Your task to perform on an android device: Open the web browser Image 0: 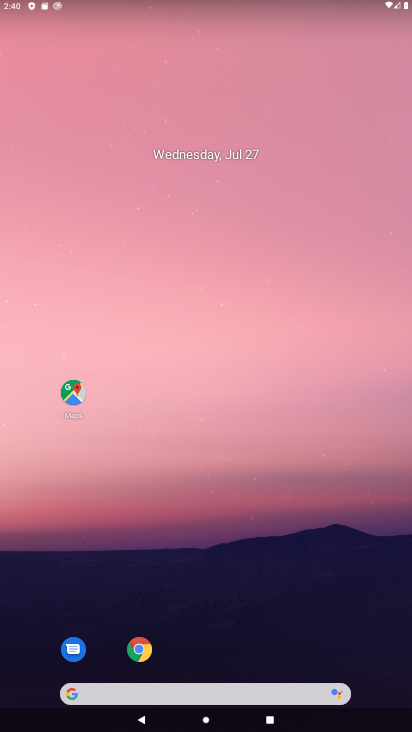
Step 0: drag from (352, 632) to (93, 22)
Your task to perform on an android device: Open the web browser Image 1: 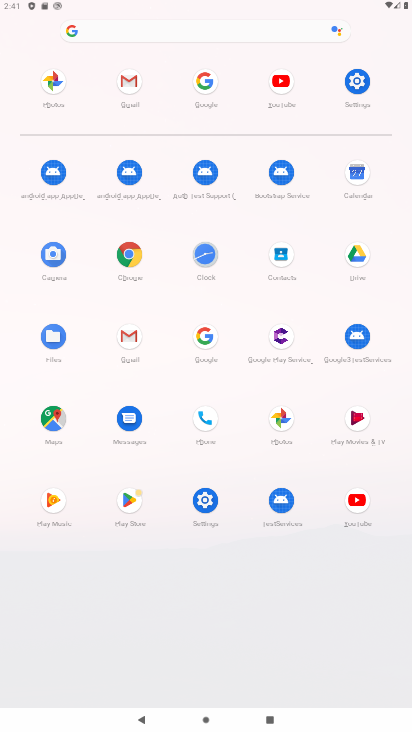
Step 1: click (201, 337)
Your task to perform on an android device: Open the web browser Image 2: 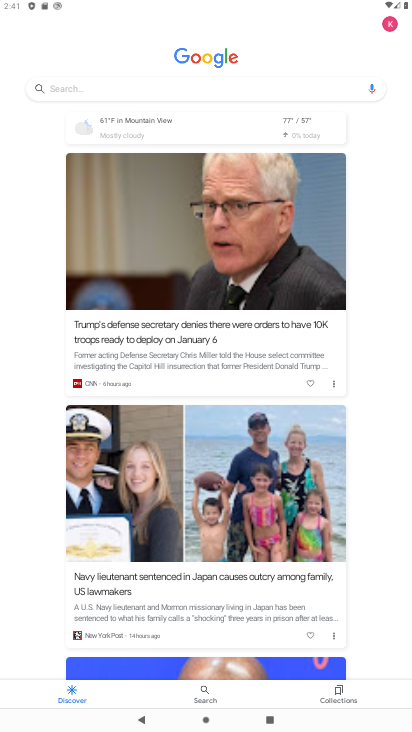
Step 2: click (116, 96)
Your task to perform on an android device: Open the web browser Image 3: 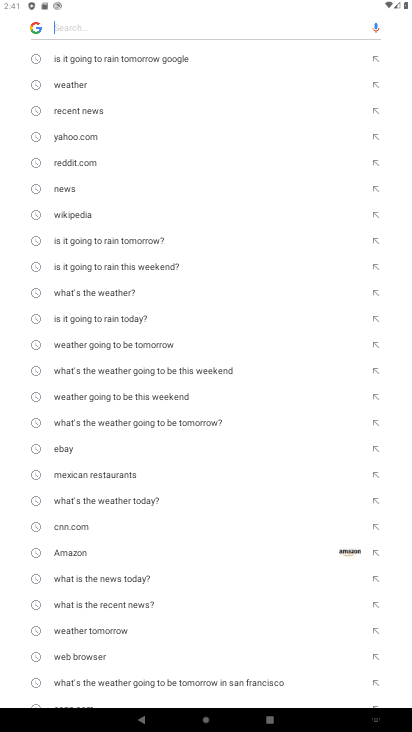
Step 3: type "web browser"
Your task to perform on an android device: Open the web browser Image 4: 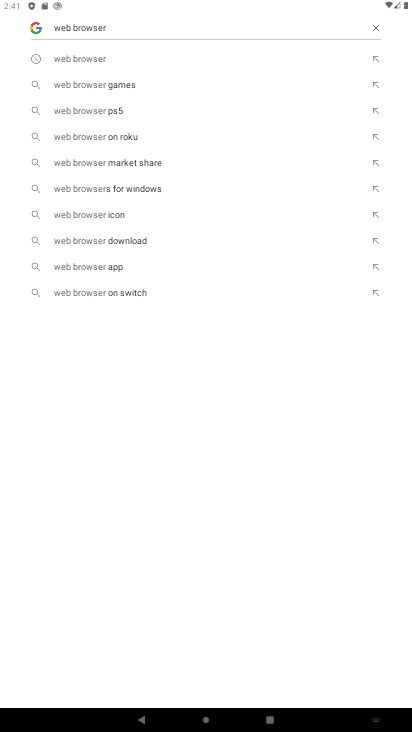
Step 4: click (110, 56)
Your task to perform on an android device: Open the web browser Image 5: 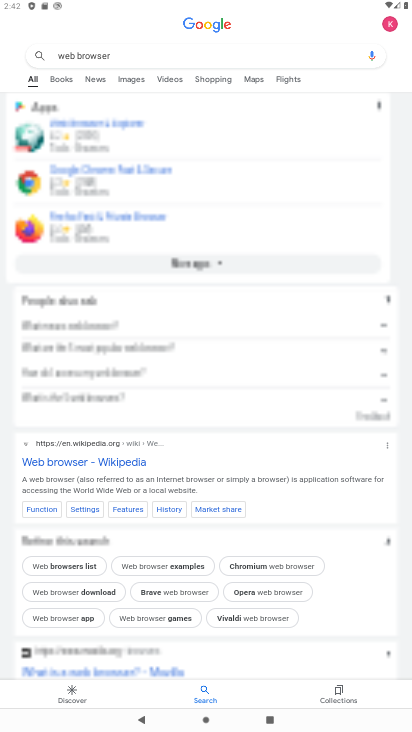
Step 5: task complete